Your task to perform on an android device: clear history in the chrome app Image 0: 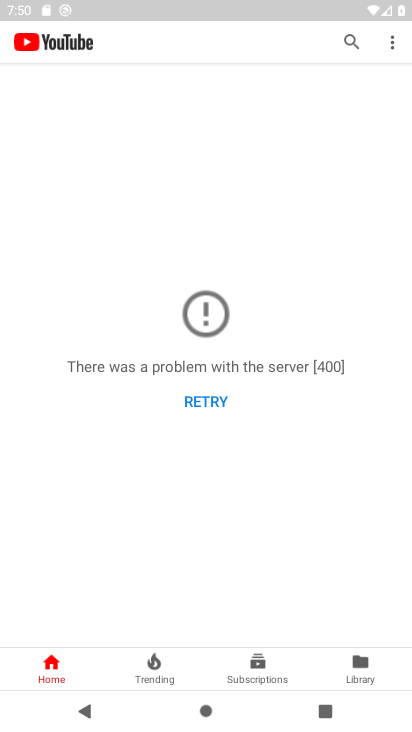
Step 0: press home button
Your task to perform on an android device: clear history in the chrome app Image 1: 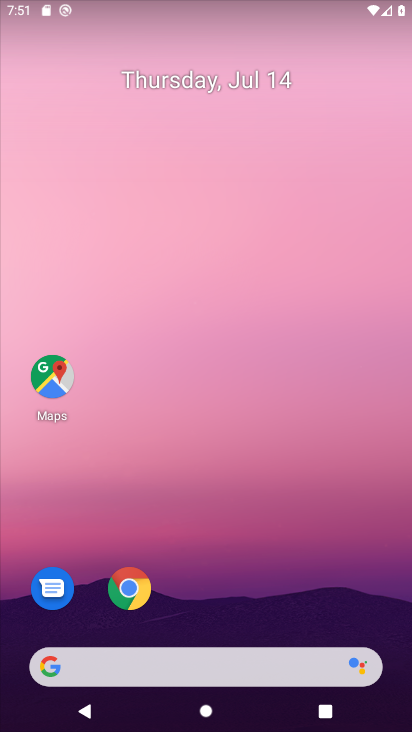
Step 1: drag from (353, 616) to (382, 110)
Your task to perform on an android device: clear history in the chrome app Image 2: 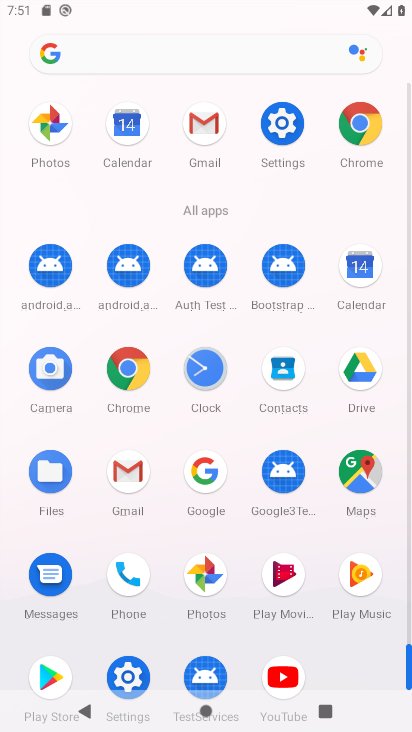
Step 2: click (131, 374)
Your task to perform on an android device: clear history in the chrome app Image 3: 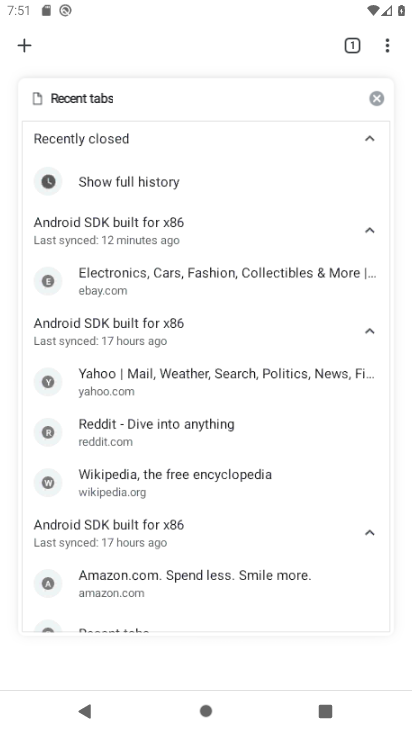
Step 3: press back button
Your task to perform on an android device: clear history in the chrome app Image 4: 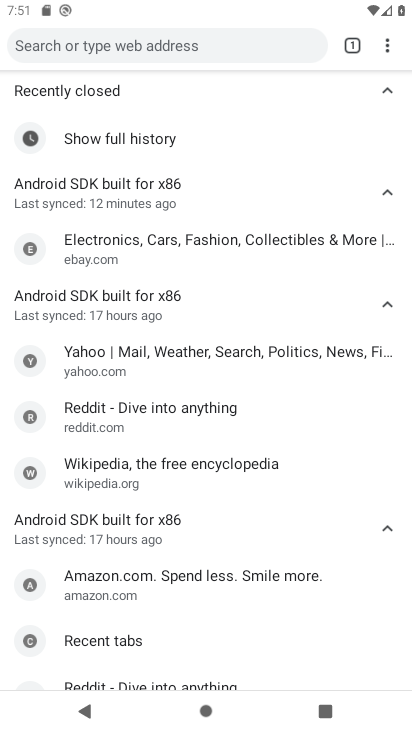
Step 4: click (383, 48)
Your task to perform on an android device: clear history in the chrome app Image 5: 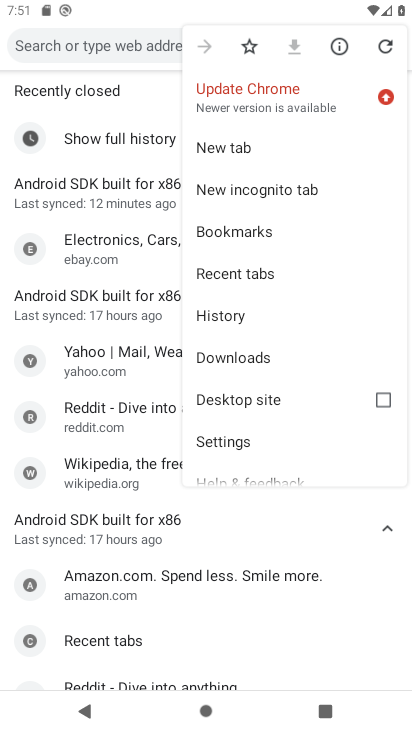
Step 5: click (246, 318)
Your task to perform on an android device: clear history in the chrome app Image 6: 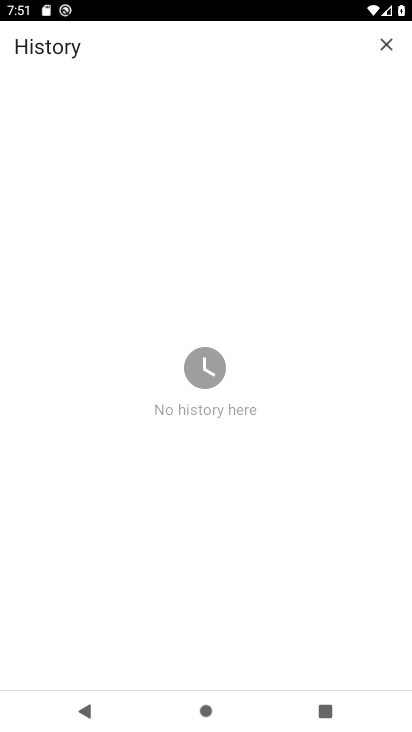
Step 6: task complete